Your task to perform on an android device: find which apps use the phone's location Image 0: 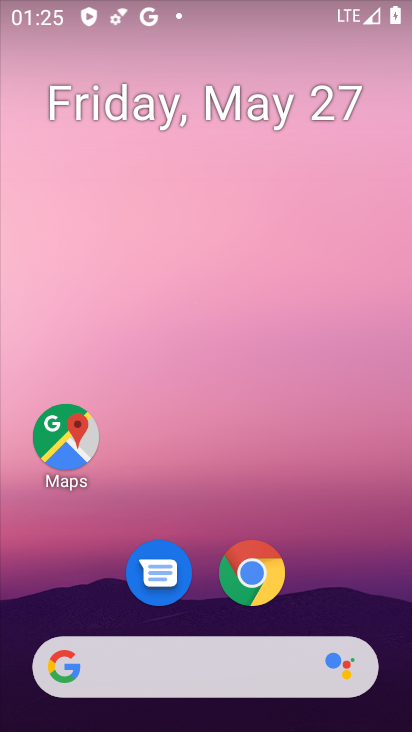
Step 0: drag from (213, 648) to (123, 41)
Your task to perform on an android device: find which apps use the phone's location Image 1: 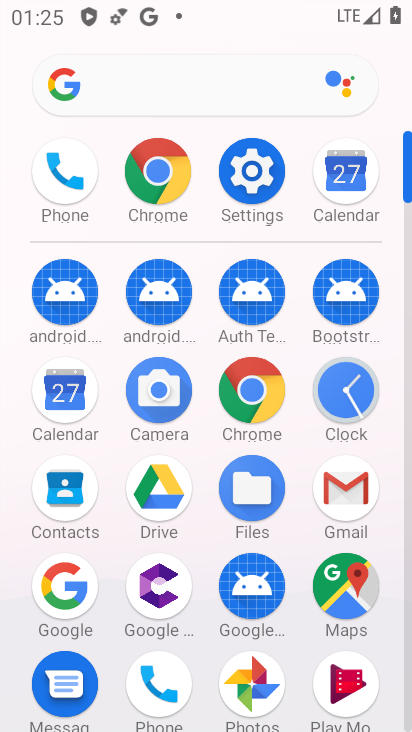
Step 1: click (272, 191)
Your task to perform on an android device: find which apps use the phone's location Image 2: 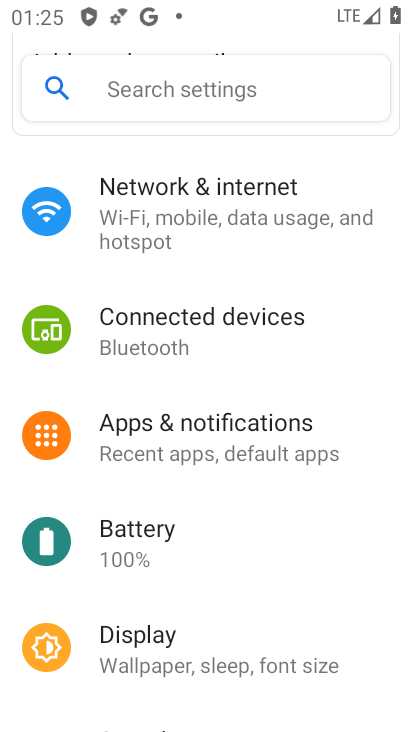
Step 2: drag from (164, 413) to (64, 0)
Your task to perform on an android device: find which apps use the phone's location Image 3: 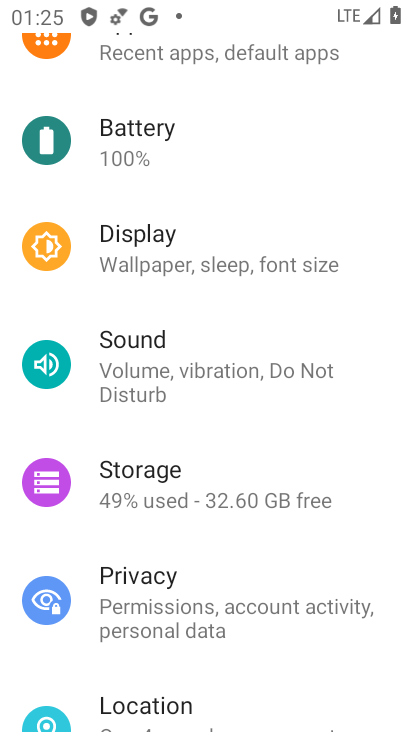
Step 3: click (104, 705)
Your task to perform on an android device: find which apps use the phone's location Image 4: 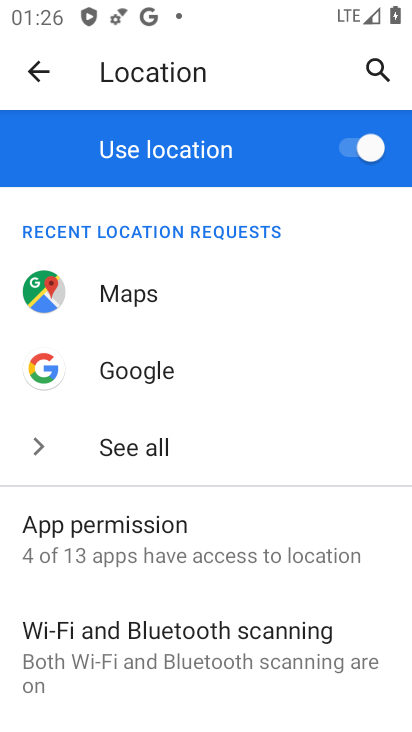
Step 4: click (80, 556)
Your task to perform on an android device: find which apps use the phone's location Image 5: 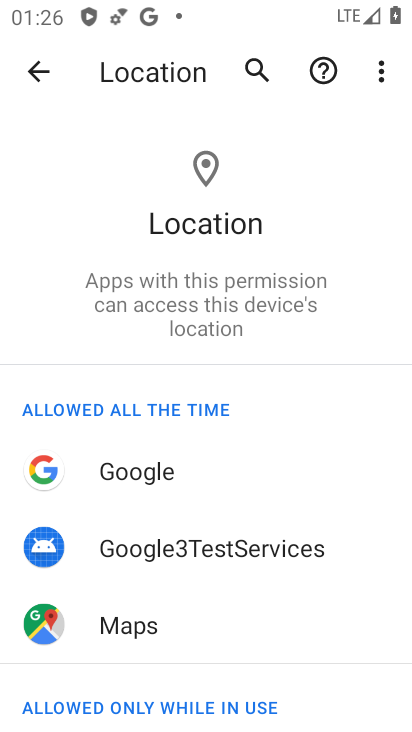
Step 5: task complete